Your task to perform on an android device: turn on sleep mode Image 0: 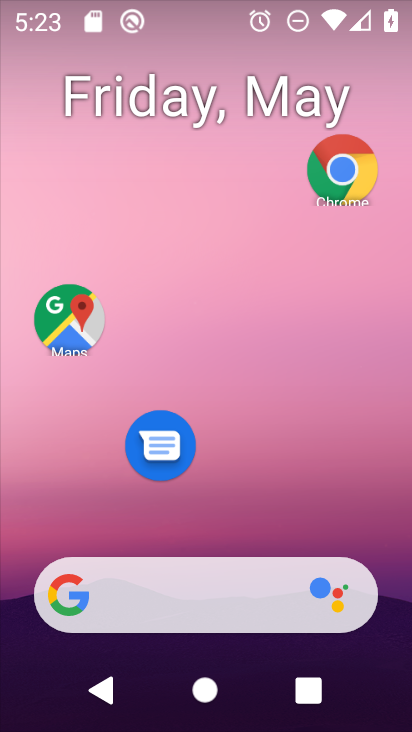
Step 0: drag from (212, 499) to (266, 48)
Your task to perform on an android device: turn on sleep mode Image 1: 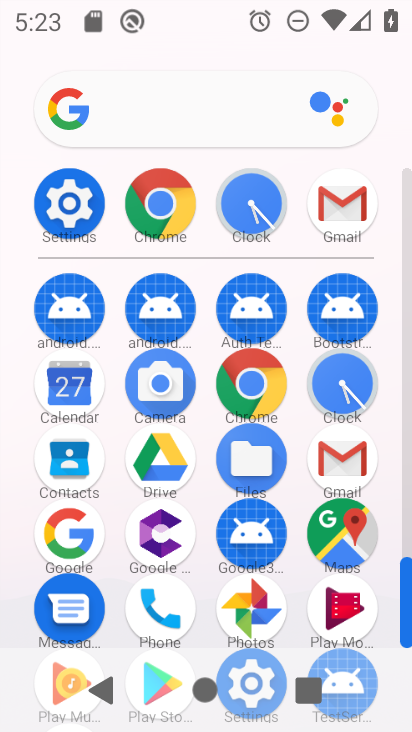
Step 1: click (66, 208)
Your task to perform on an android device: turn on sleep mode Image 2: 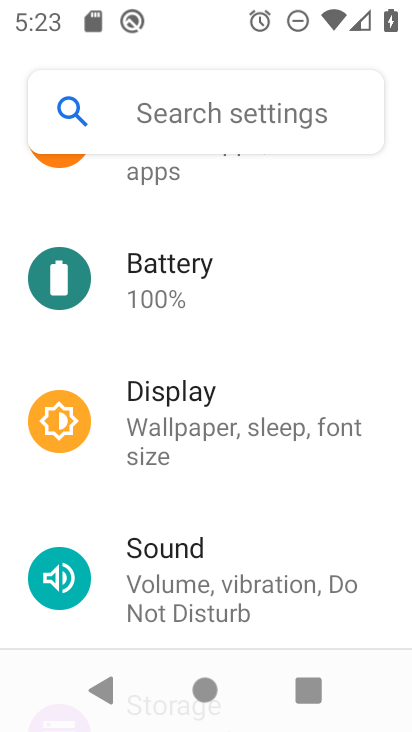
Step 2: task complete